Your task to perform on an android device: search for starred emails in the gmail app Image 0: 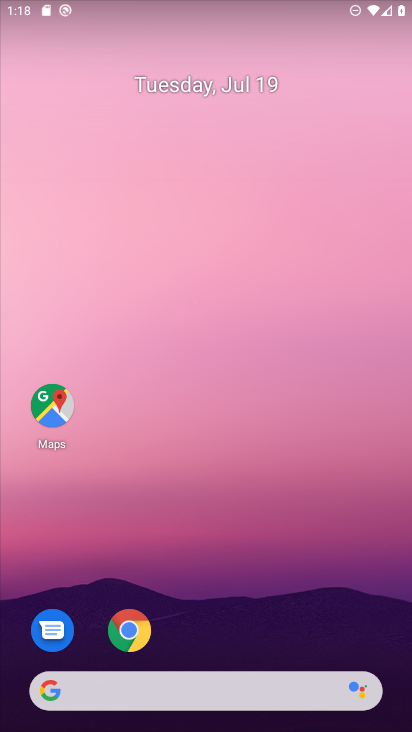
Step 0: press home button
Your task to perform on an android device: search for starred emails in the gmail app Image 1: 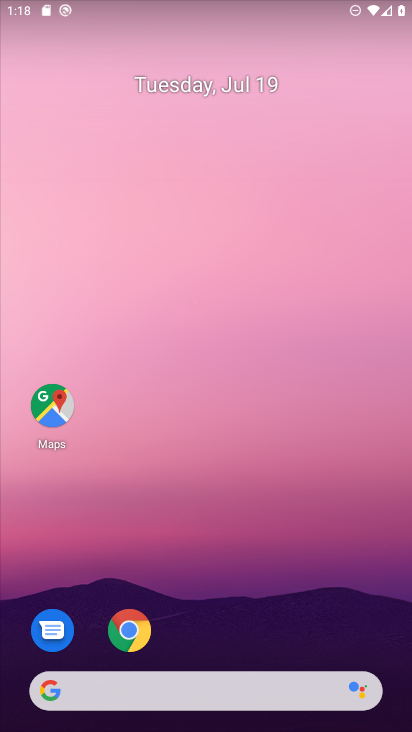
Step 1: drag from (160, 691) to (286, 25)
Your task to perform on an android device: search for starred emails in the gmail app Image 2: 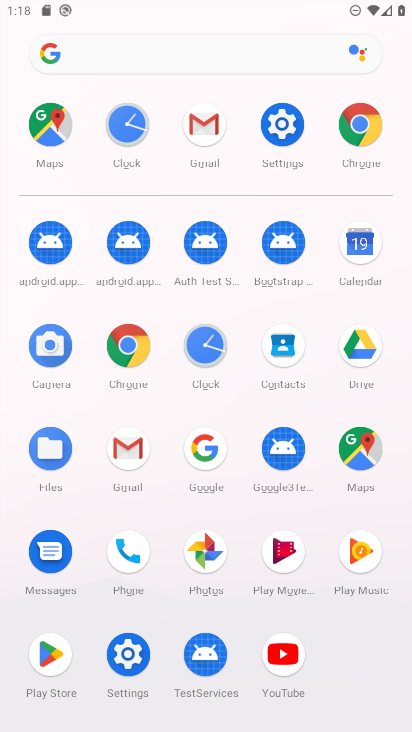
Step 2: click (127, 453)
Your task to perform on an android device: search for starred emails in the gmail app Image 3: 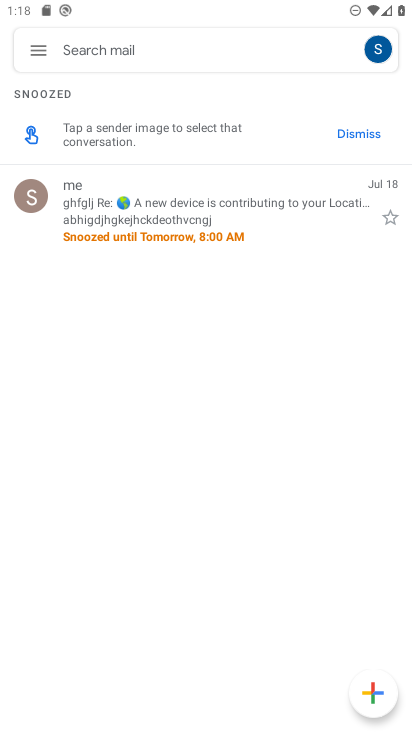
Step 3: click (46, 46)
Your task to perform on an android device: search for starred emails in the gmail app Image 4: 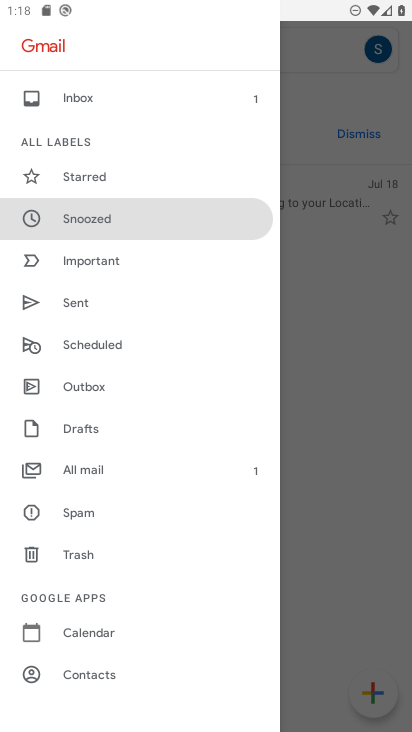
Step 4: click (93, 177)
Your task to perform on an android device: search for starred emails in the gmail app Image 5: 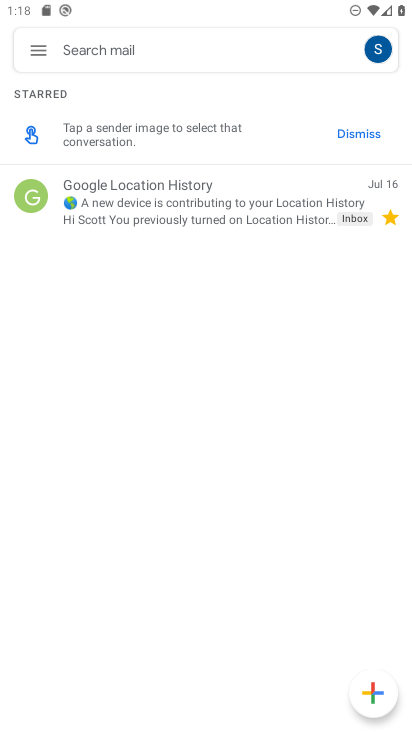
Step 5: task complete